Your task to perform on an android device: Open the phone app and click the voicemail tab. Image 0: 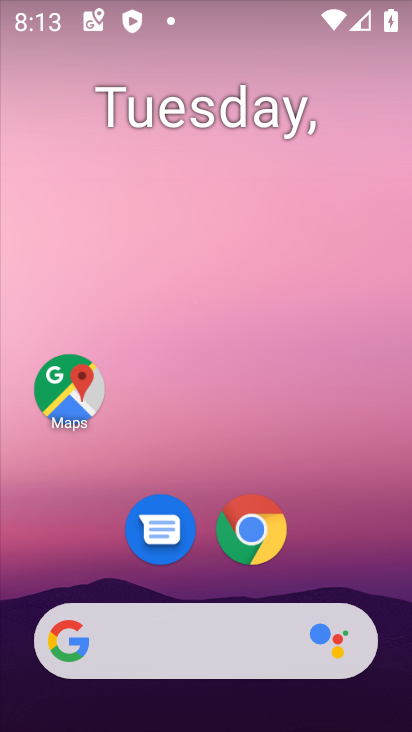
Step 0: drag from (227, 618) to (261, 117)
Your task to perform on an android device: Open the phone app and click the voicemail tab. Image 1: 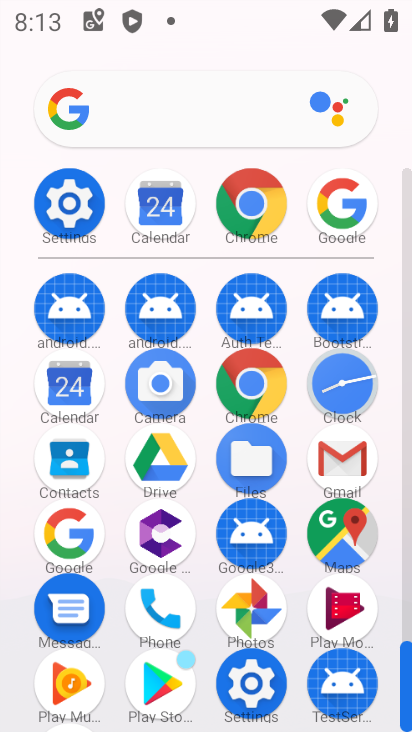
Step 1: drag from (226, 588) to (279, 65)
Your task to perform on an android device: Open the phone app and click the voicemail tab. Image 2: 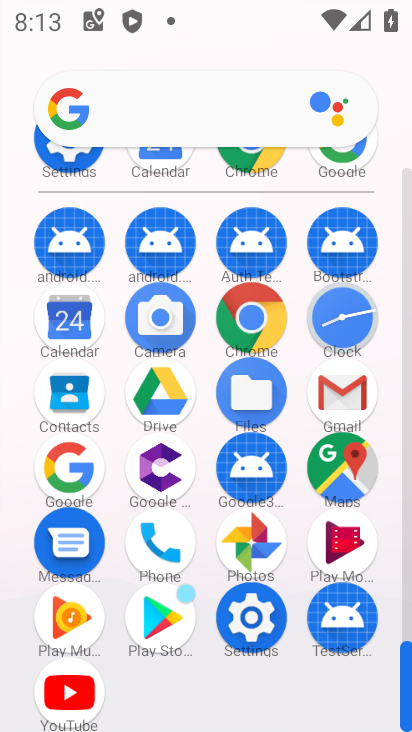
Step 2: click (172, 547)
Your task to perform on an android device: Open the phone app and click the voicemail tab. Image 3: 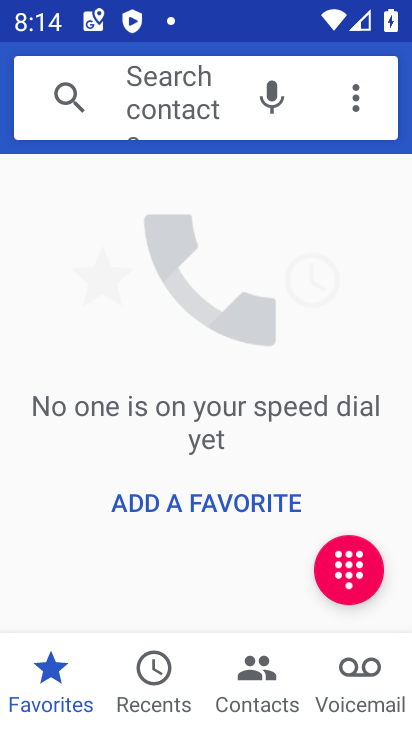
Step 3: click (364, 707)
Your task to perform on an android device: Open the phone app and click the voicemail tab. Image 4: 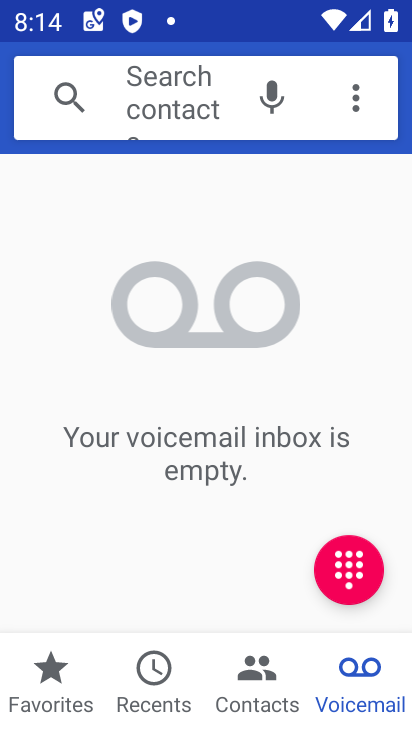
Step 4: task complete